Your task to perform on an android device: Show me productivity apps on the Play Store Image 0: 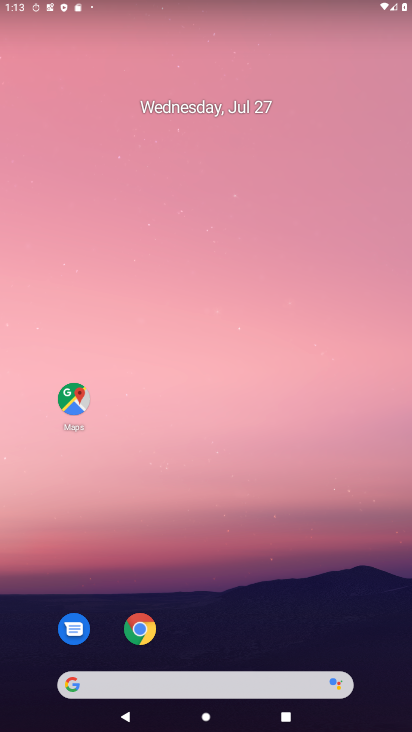
Step 0: drag from (316, 624) to (204, 35)
Your task to perform on an android device: Show me productivity apps on the Play Store Image 1: 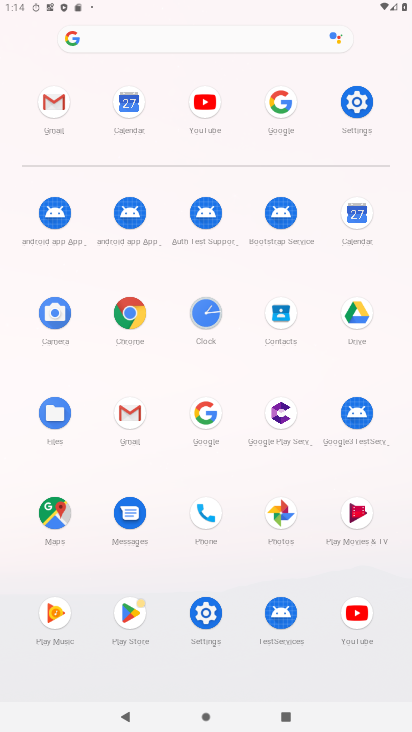
Step 1: click (123, 617)
Your task to perform on an android device: Show me productivity apps on the Play Store Image 2: 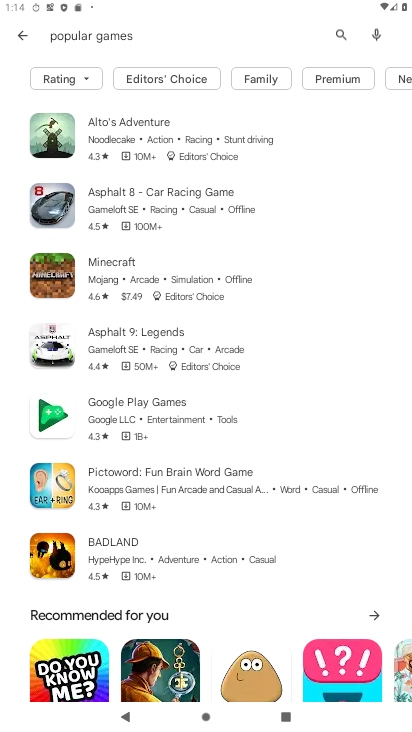
Step 2: task complete